Your task to perform on an android device: Open Reddit.com Image 0: 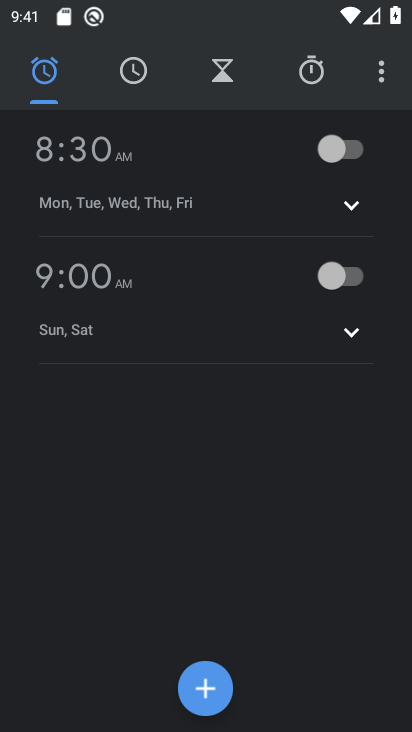
Step 0: press home button
Your task to perform on an android device: Open Reddit.com Image 1: 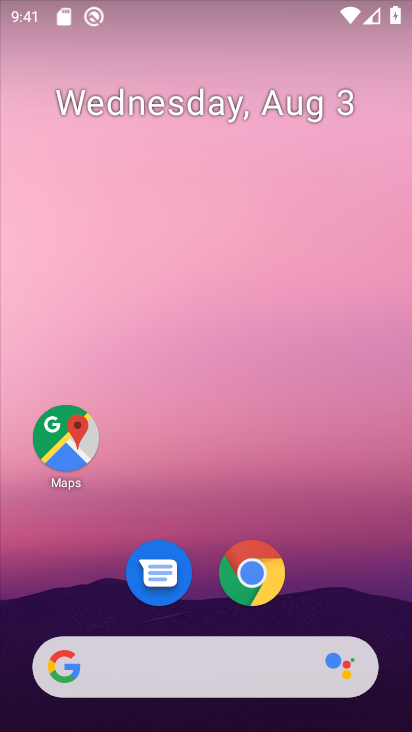
Step 1: click (248, 573)
Your task to perform on an android device: Open Reddit.com Image 2: 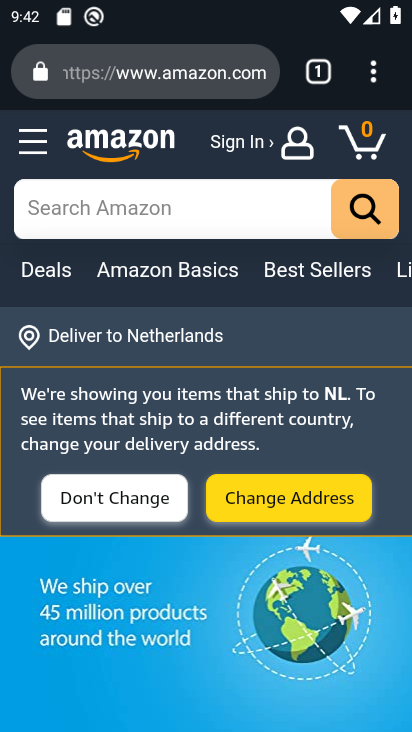
Step 2: click (213, 67)
Your task to perform on an android device: Open Reddit.com Image 3: 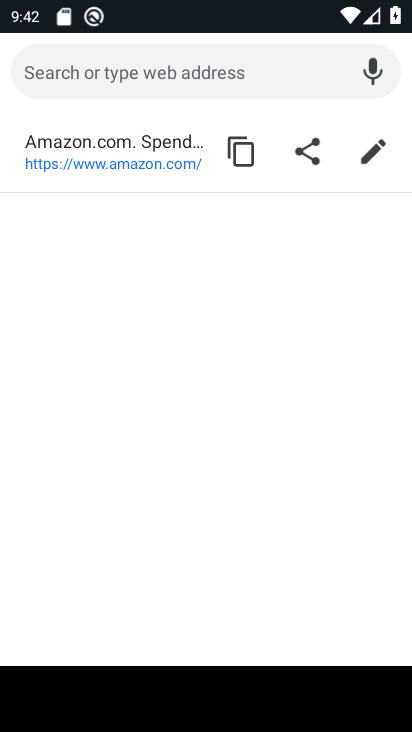
Step 3: type "reddit.com"
Your task to perform on an android device: Open Reddit.com Image 4: 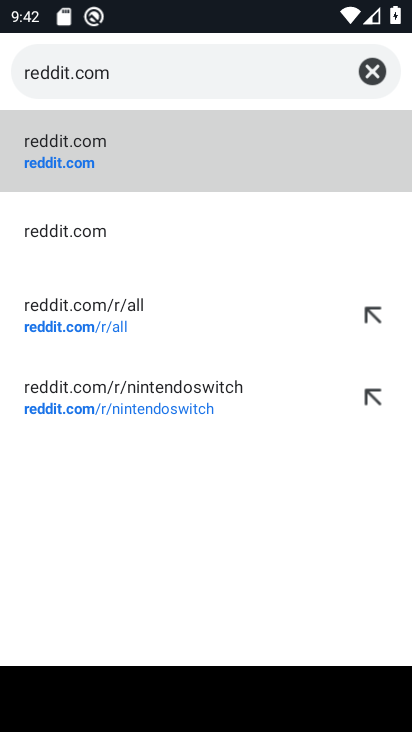
Step 4: click (89, 167)
Your task to perform on an android device: Open Reddit.com Image 5: 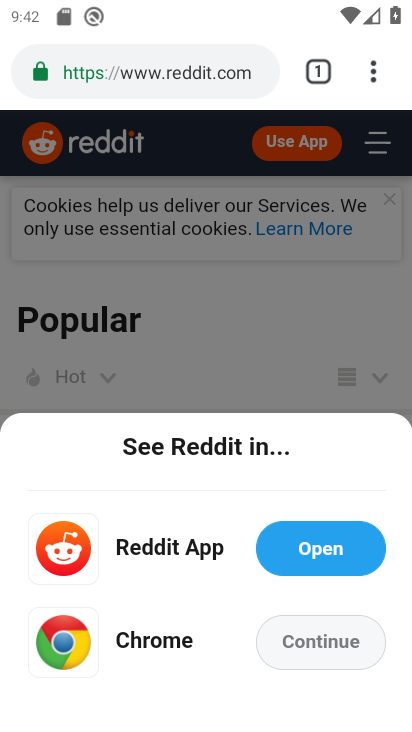
Step 5: task complete